Your task to perform on an android device: check storage Image 0: 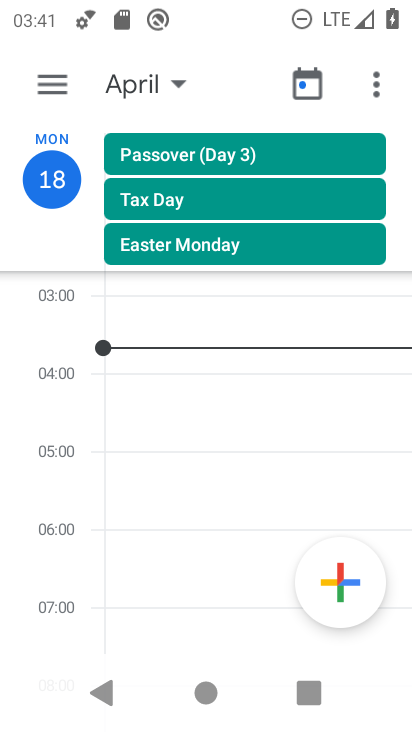
Step 0: click (75, 345)
Your task to perform on an android device: check storage Image 1: 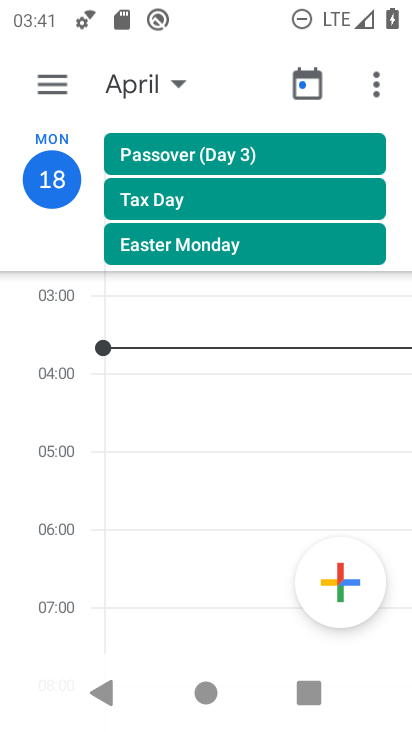
Step 1: press back button
Your task to perform on an android device: check storage Image 2: 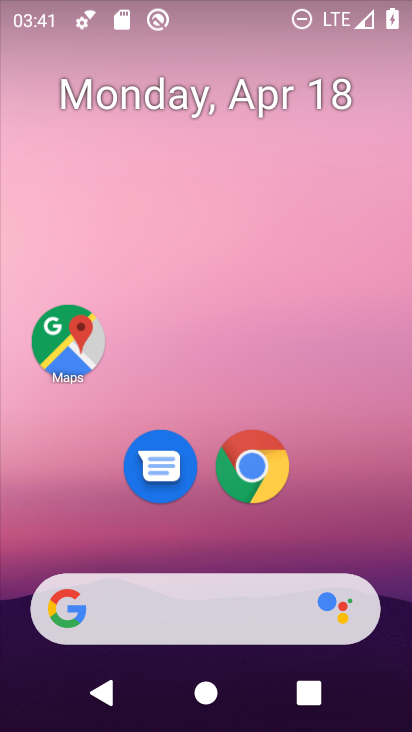
Step 2: drag from (365, 509) to (254, 186)
Your task to perform on an android device: check storage Image 3: 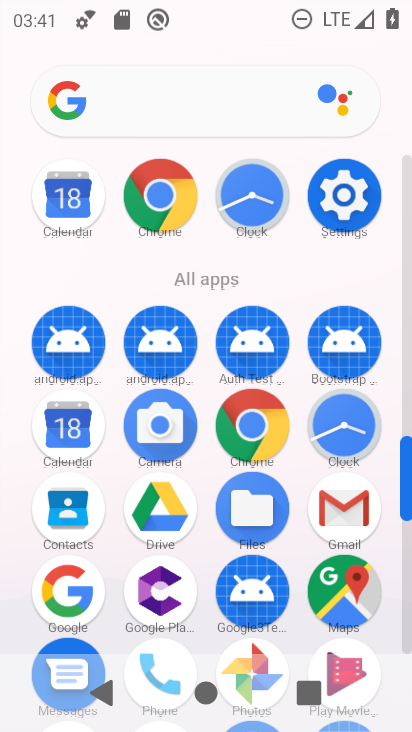
Step 3: click (331, 211)
Your task to perform on an android device: check storage Image 4: 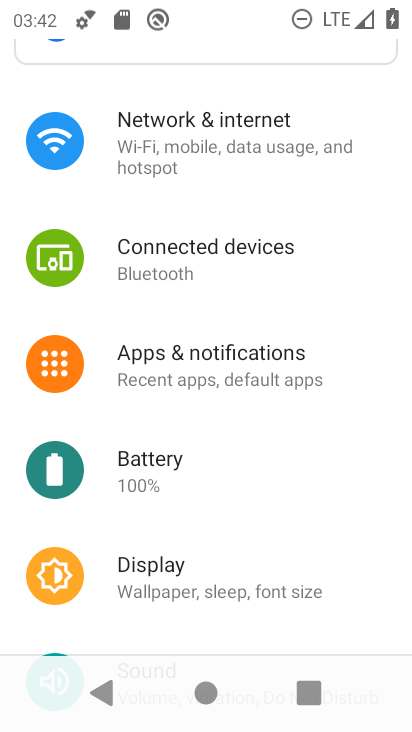
Step 4: drag from (255, 508) to (293, 205)
Your task to perform on an android device: check storage Image 5: 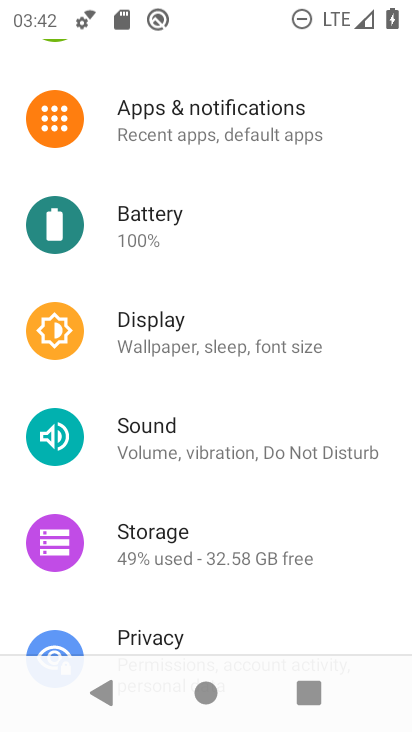
Step 5: click (251, 528)
Your task to perform on an android device: check storage Image 6: 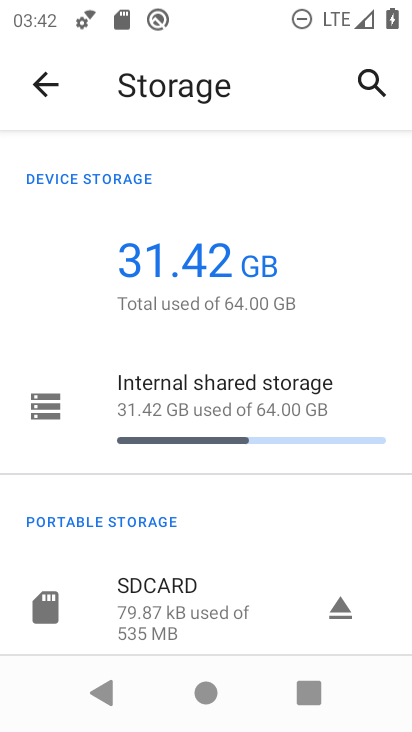
Step 6: task complete